Your task to perform on an android device: open a bookmark in the chrome app Image 0: 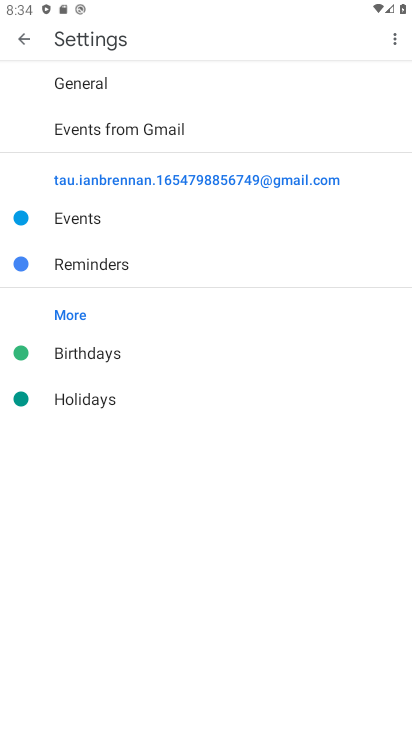
Step 0: press back button
Your task to perform on an android device: open a bookmark in the chrome app Image 1: 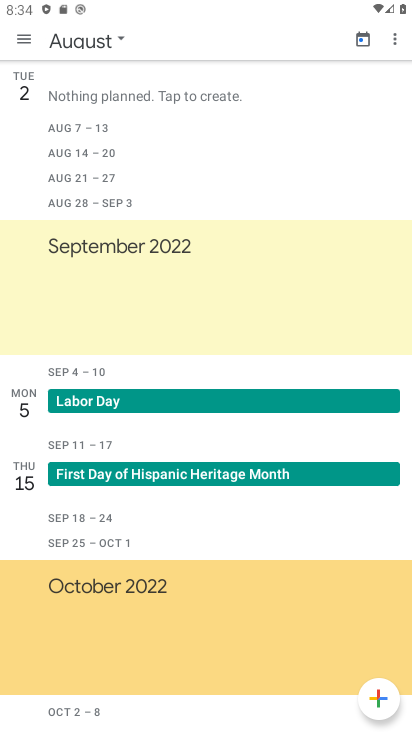
Step 1: press back button
Your task to perform on an android device: open a bookmark in the chrome app Image 2: 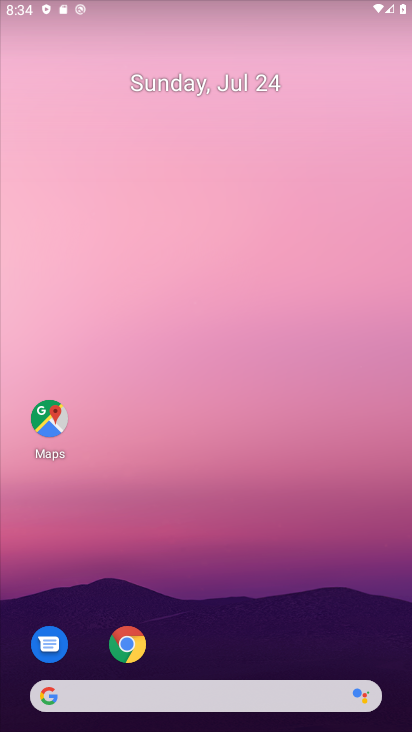
Step 2: drag from (213, 649) to (142, 92)
Your task to perform on an android device: open a bookmark in the chrome app Image 3: 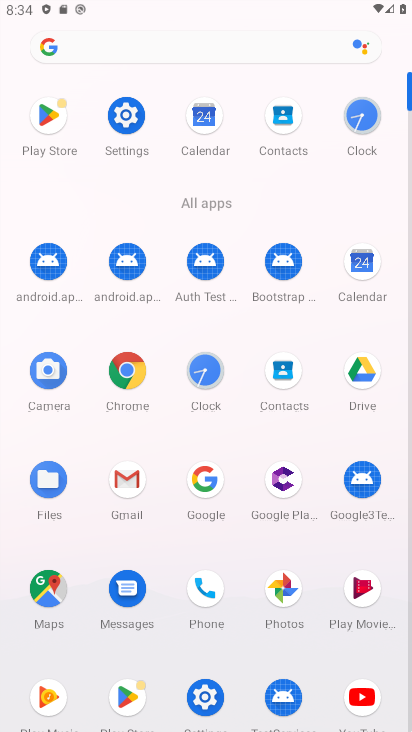
Step 3: click (127, 365)
Your task to perform on an android device: open a bookmark in the chrome app Image 4: 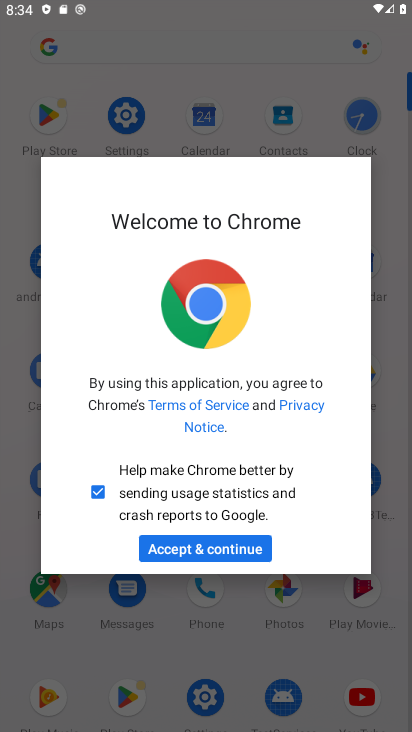
Step 4: click (234, 551)
Your task to perform on an android device: open a bookmark in the chrome app Image 5: 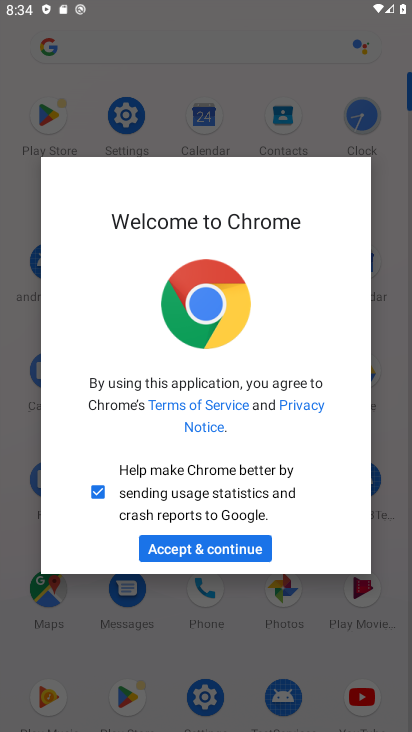
Step 5: click (239, 546)
Your task to perform on an android device: open a bookmark in the chrome app Image 6: 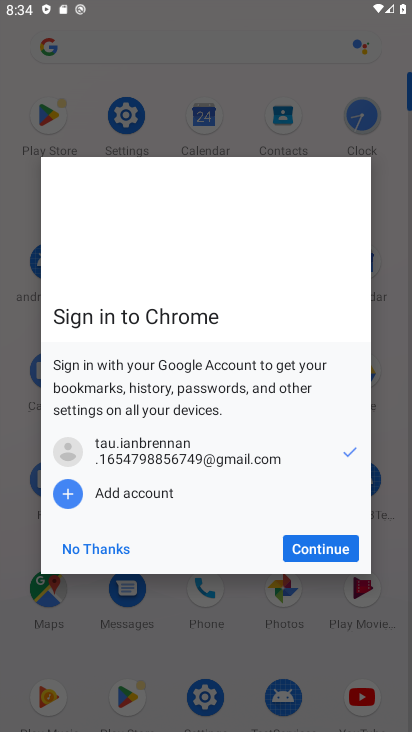
Step 6: click (242, 542)
Your task to perform on an android device: open a bookmark in the chrome app Image 7: 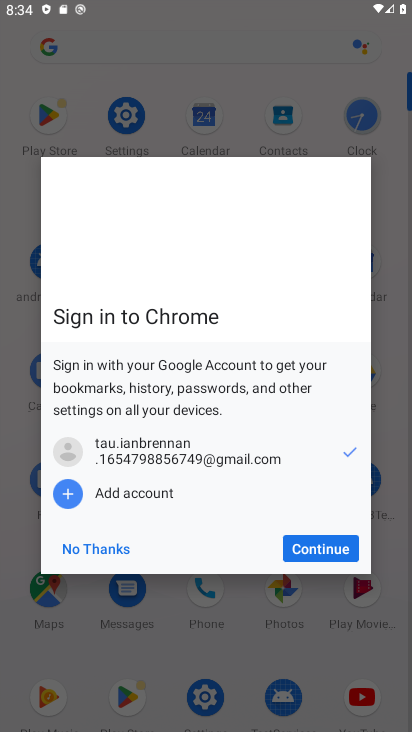
Step 7: click (102, 544)
Your task to perform on an android device: open a bookmark in the chrome app Image 8: 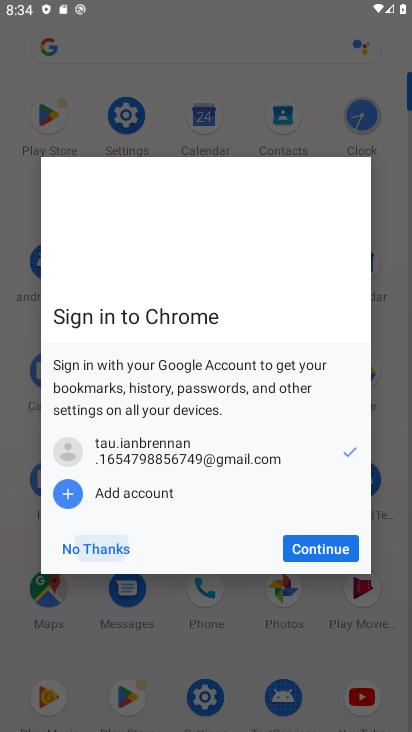
Step 8: click (118, 522)
Your task to perform on an android device: open a bookmark in the chrome app Image 9: 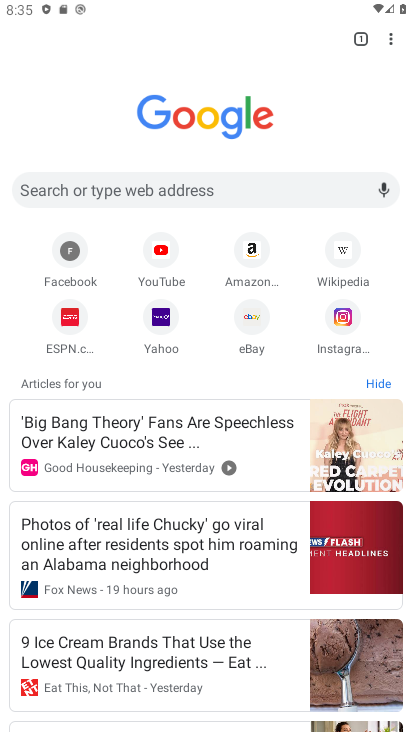
Step 9: drag from (389, 41) to (253, 147)
Your task to perform on an android device: open a bookmark in the chrome app Image 10: 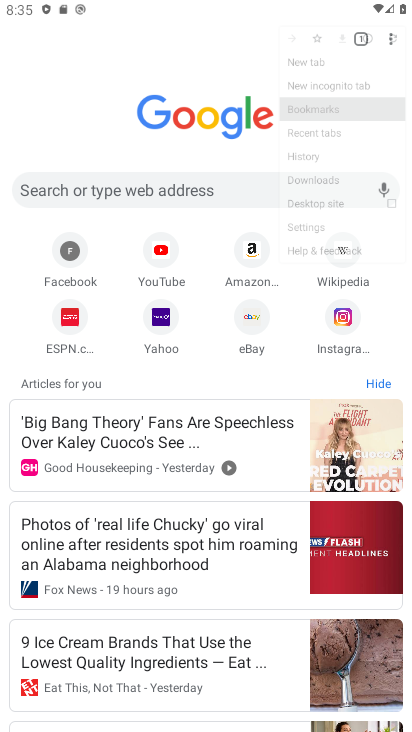
Step 10: click (249, 150)
Your task to perform on an android device: open a bookmark in the chrome app Image 11: 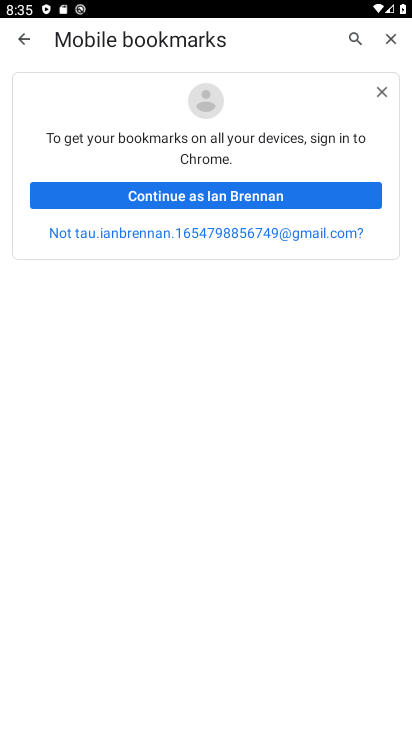
Step 11: click (379, 93)
Your task to perform on an android device: open a bookmark in the chrome app Image 12: 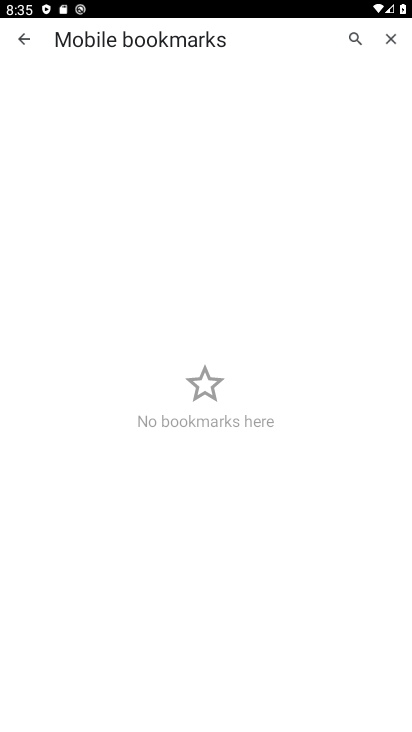
Step 12: task complete